Your task to perform on an android device: Open display settings Image 0: 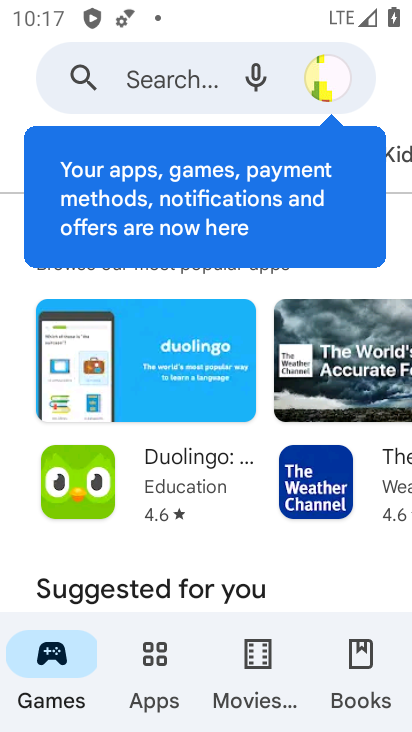
Step 0: press home button
Your task to perform on an android device: Open display settings Image 1: 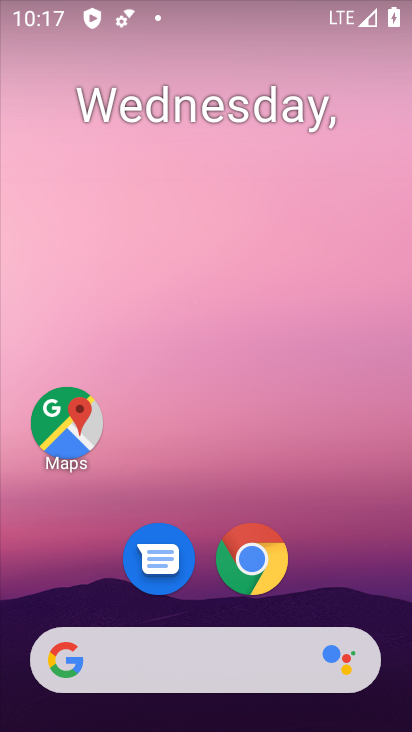
Step 1: drag from (369, 537) to (277, 9)
Your task to perform on an android device: Open display settings Image 2: 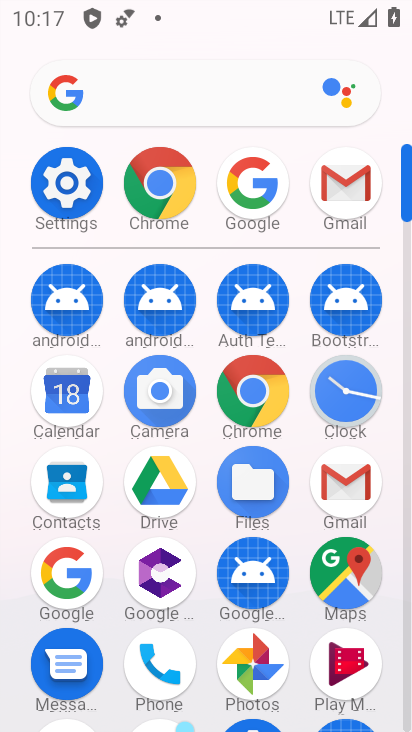
Step 2: click (98, 230)
Your task to perform on an android device: Open display settings Image 3: 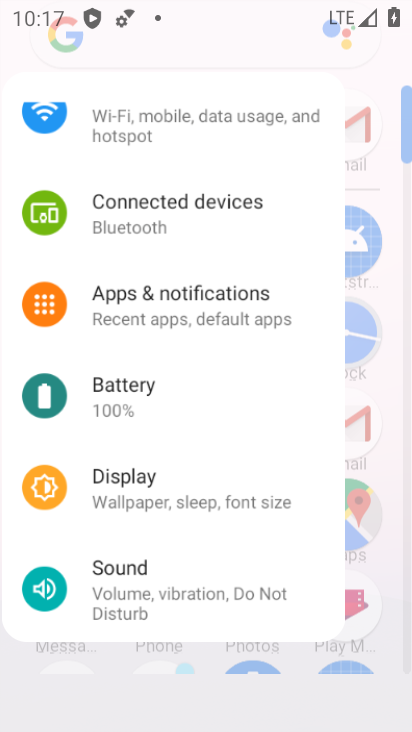
Step 3: click (74, 198)
Your task to perform on an android device: Open display settings Image 4: 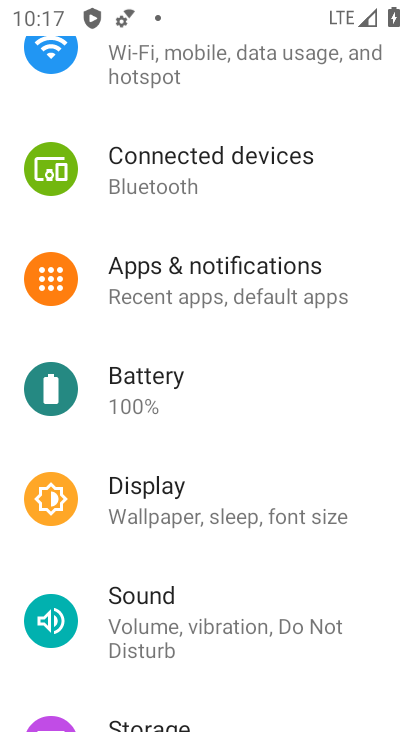
Step 4: drag from (199, 181) to (260, 584)
Your task to perform on an android device: Open display settings Image 5: 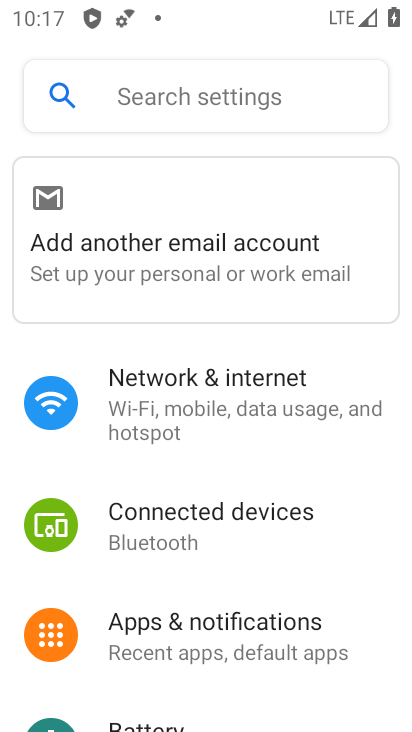
Step 5: drag from (261, 539) to (317, 108)
Your task to perform on an android device: Open display settings Image 6: 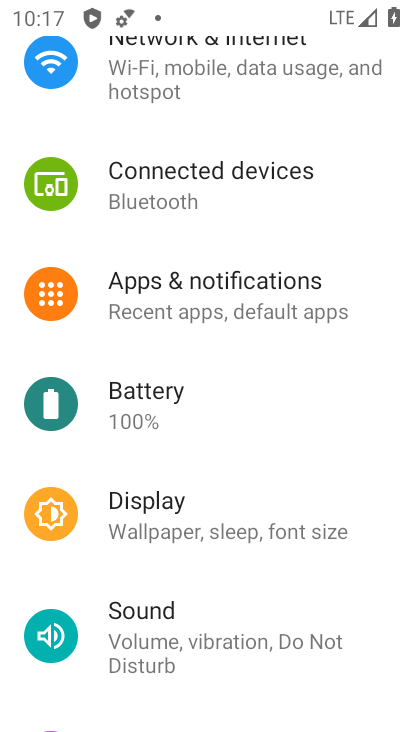
Step 6: click (142, 542)
Your task to perform on an android device: Open display settings Image 7: 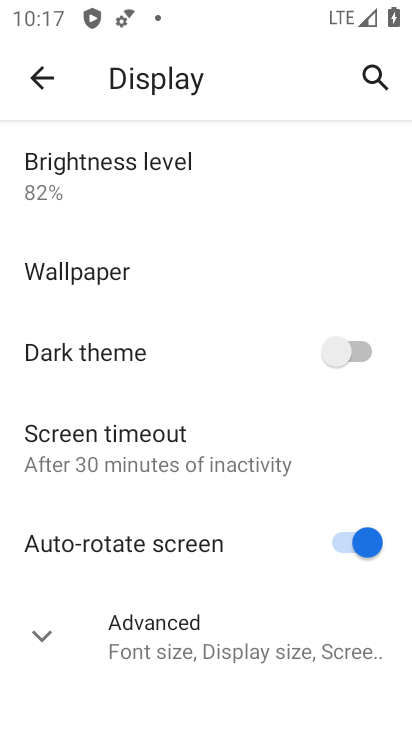
Step 7: task complete